Your task to perform on an android device: Open Youtube and go to the subscriptions tab Image 0: 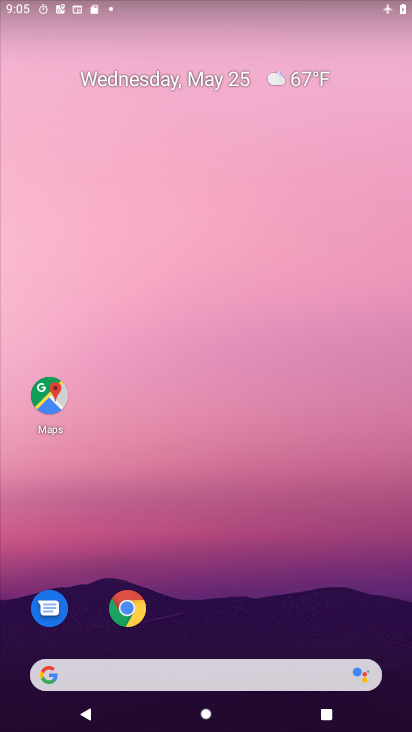
Step 0: drag from (224, 715) to (228, 75)
Your task to perform on an android device: Open Youtube and go to the subscriptions tab Image 1: 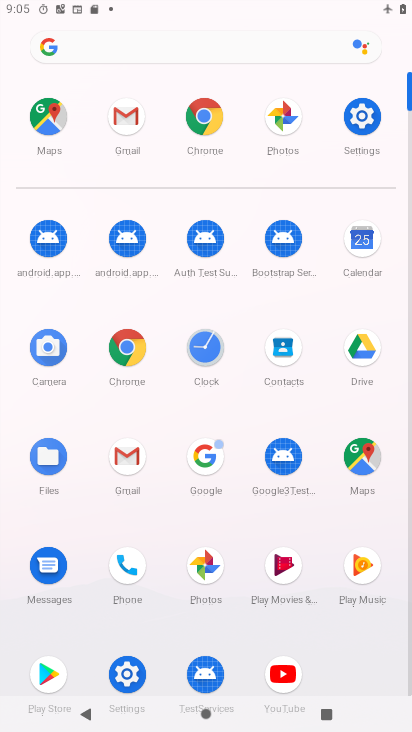
Step 1: click (282, 671)
Your task to perform on an android device: Open Youtube and go to the subscriptions tab Image 2: 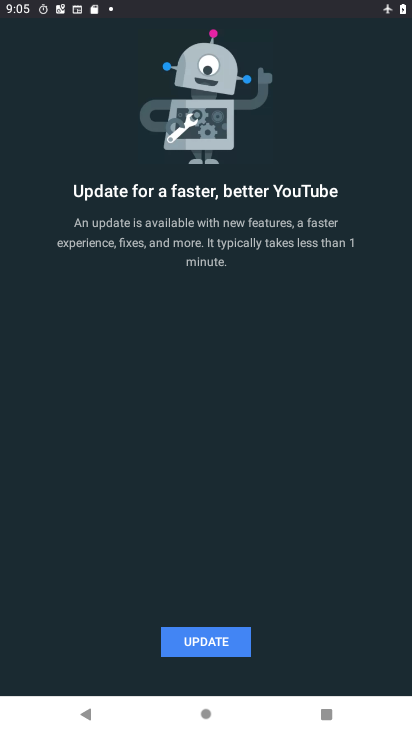
Step 2: task complete